Your task to perform on an android device: make emails show in primary in the gmail app Image 0: 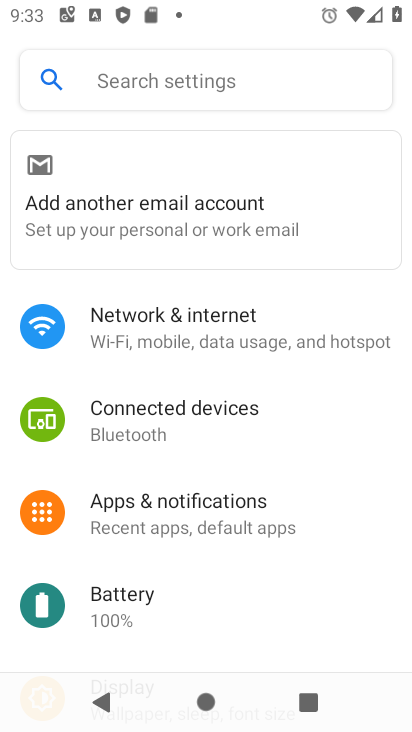
Step 0: press back button
Your task to perform on an android device: make emails show in primary in the gmail app Image 1: 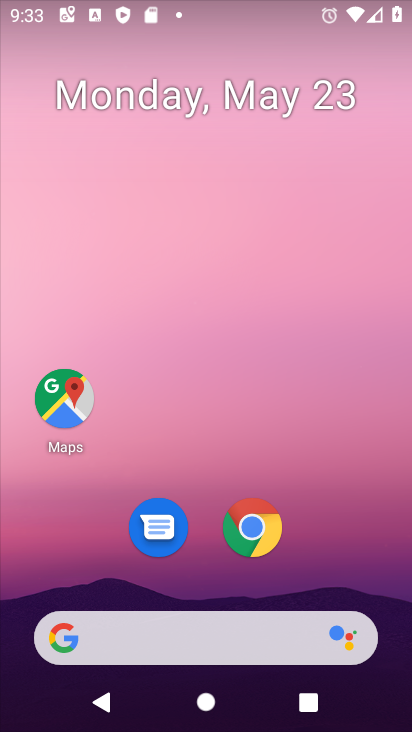
Step 1: drag from (388, 557) to (252, 2)
Your task to perform on an android device: make emails show in primary in the gmail app Image 2: 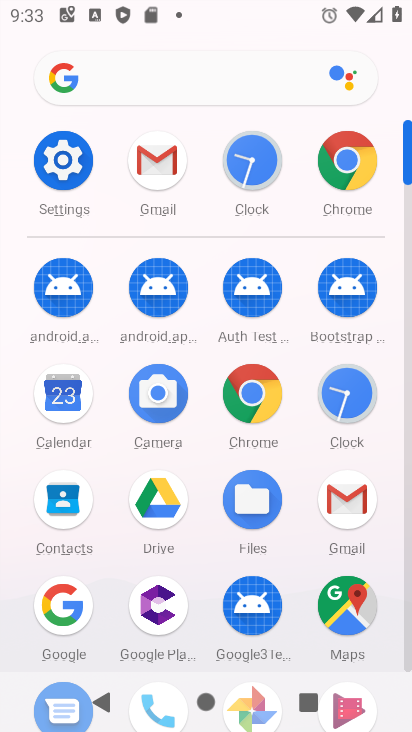
Step 2: drag from (2, 610) to (24, 225)
Your task to perform on an android device: make emails show in primary in the gmail app Image 3: 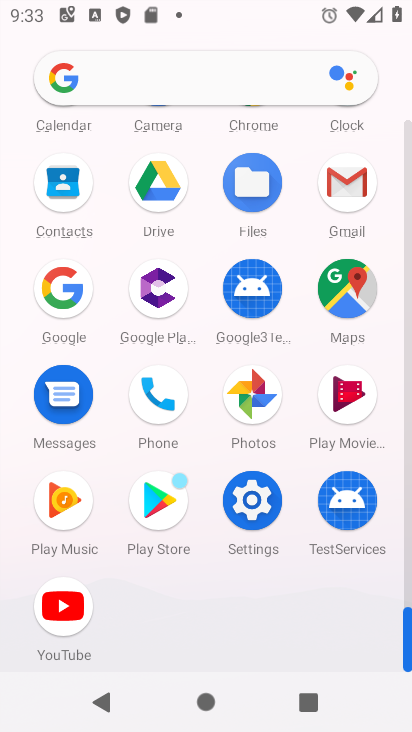
Step 3: click (346, 176)
Your task to perform on an android device: make emails show in primary in the gmail app Image 4: 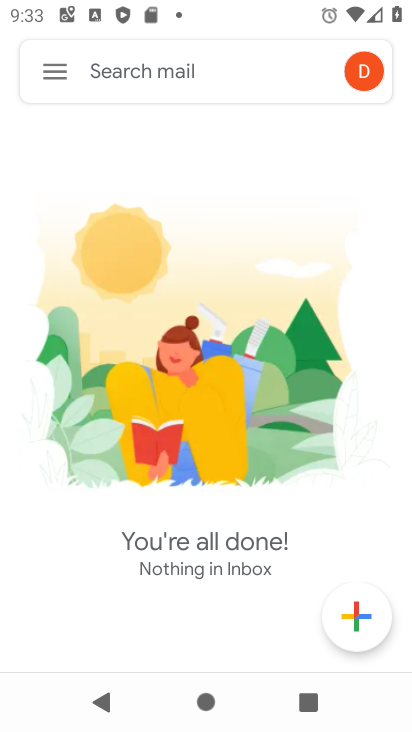
Step 4: click (54, 69)
Your task to perform on an android device: make emails show in primary in the gmail app Image 5: 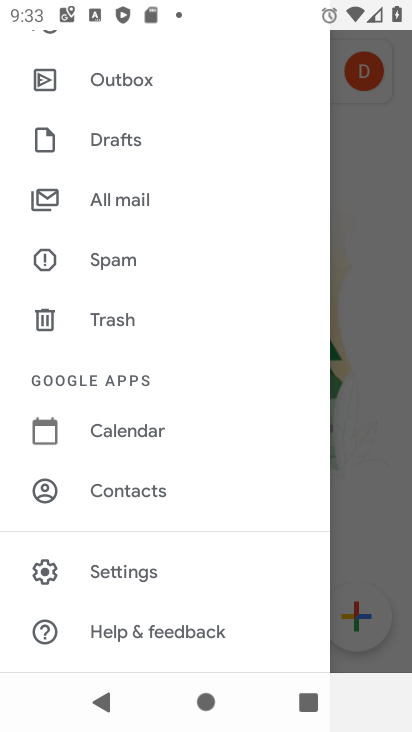
Step 5: click (135, 567)
Your task to perform on an android device: make emails show in primary in the gmail app Image 6: 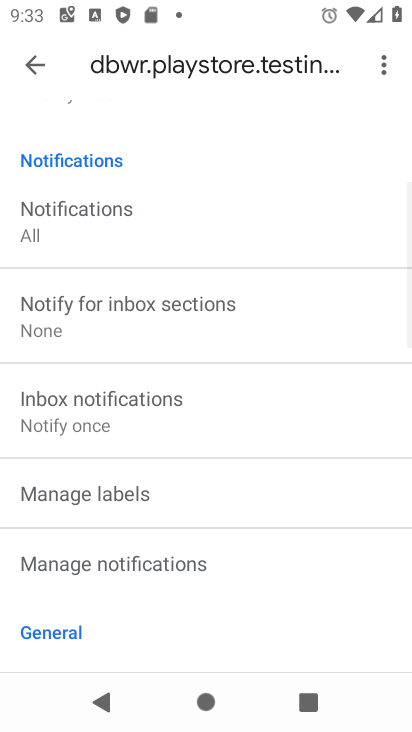
Step 6: drag from (224, 172) to (243, 593)
Your task to perform on an android device: make emails show in primary in the gmail app Image 7: 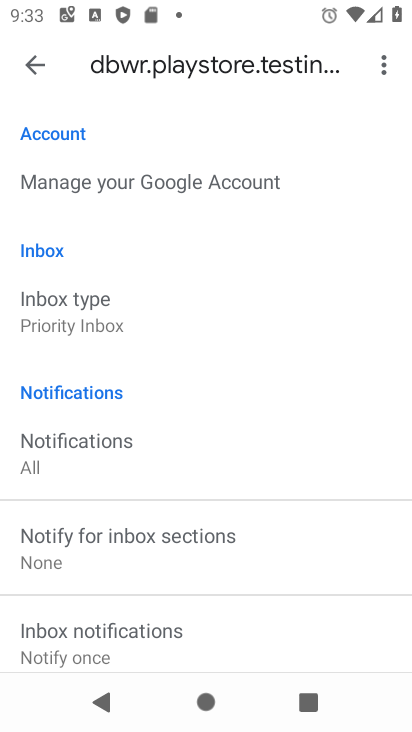
Step 7: click (113, 323)
Your task to perform on an android device: make emails show in primary in the gmail app Image 8: 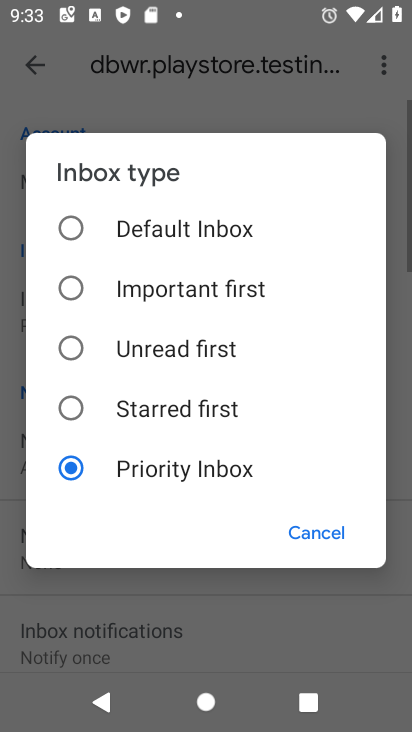
Step 8: click (155, 237)
Your task to perform on an android device: make emails show in primary in the gmail app Image 9: 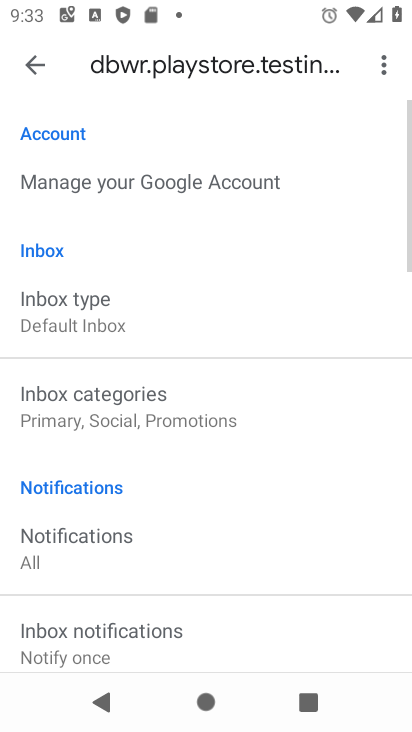
Step 9: click (139, 410)
Your task to perform on an android device: make emails show in primary in the gmail app Image 10: 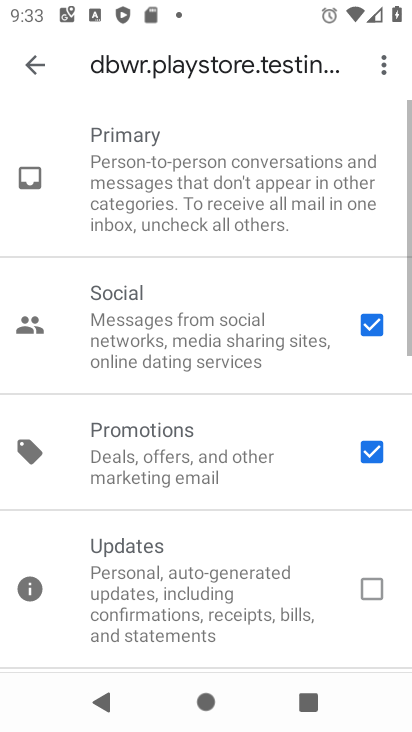
Step 10: click (358, 444)
Your task to perform on an android device: make emails show in primary in the gmail app Image 11: 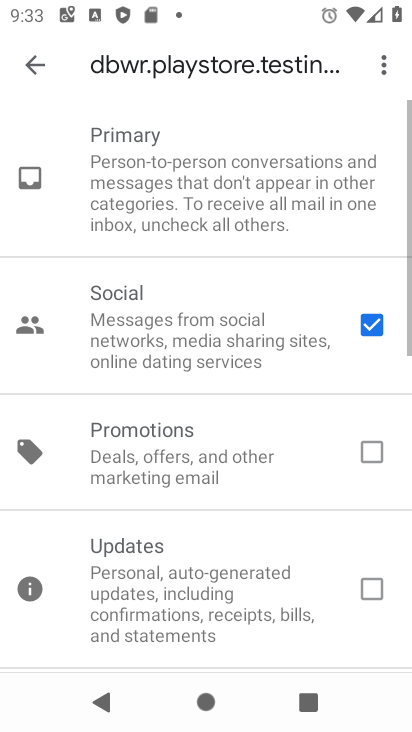
Step 11: click (370, 319)
Your task to perform on an android device: make emails show in primary in the gmail app Image 12: 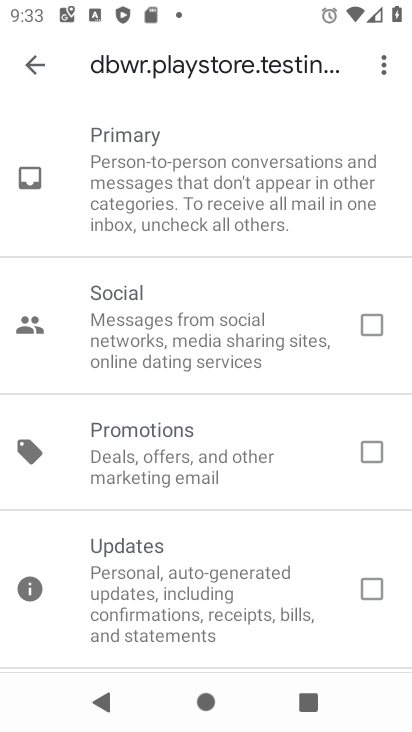
Step 12: click (29, 56)
Your task to perform on an android device: make emails show in primary in the gmail app Image 13: 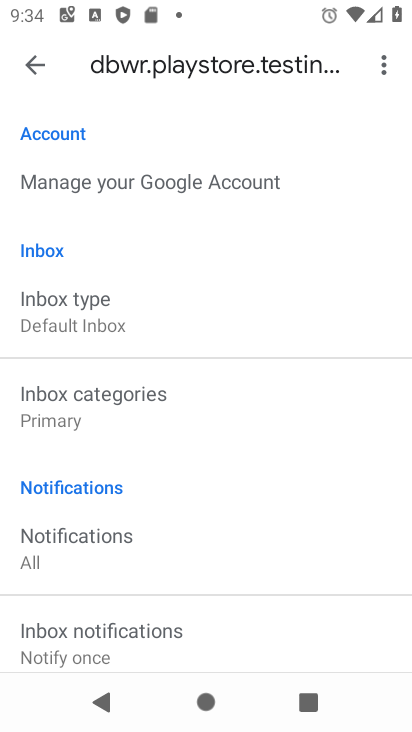
Step 13: task complete